Your task to perform on an android device: turn off picture-in-picture Image 0: 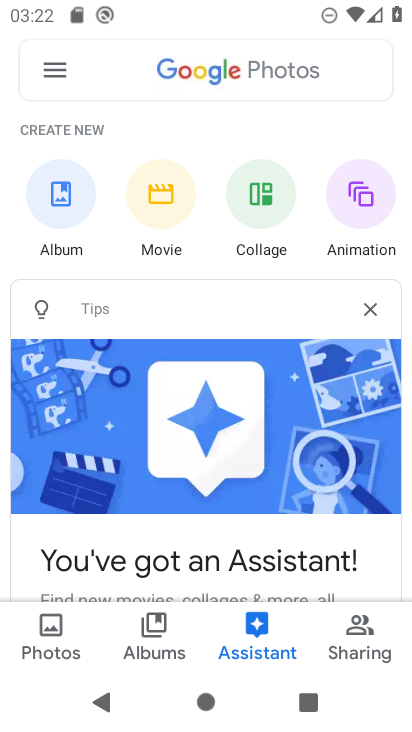
Step 0: press home button
Your task to perform on an android device: turn off picture-in-picture Image 1: 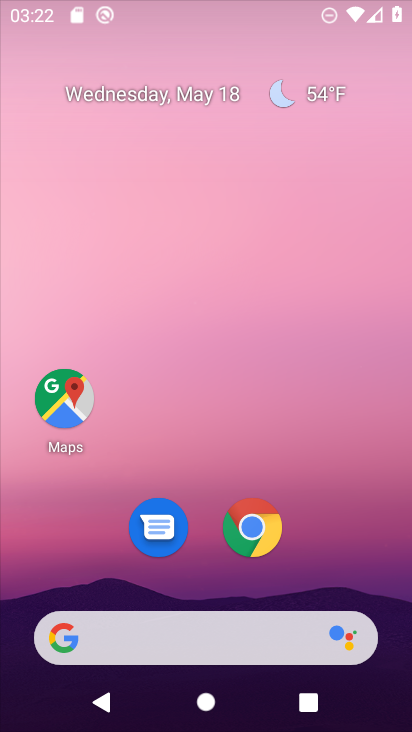
Step 1: drag from (242, 587) to (191, 2)
Your task to perform on an android device: turn off picture-in-picture Image 2: 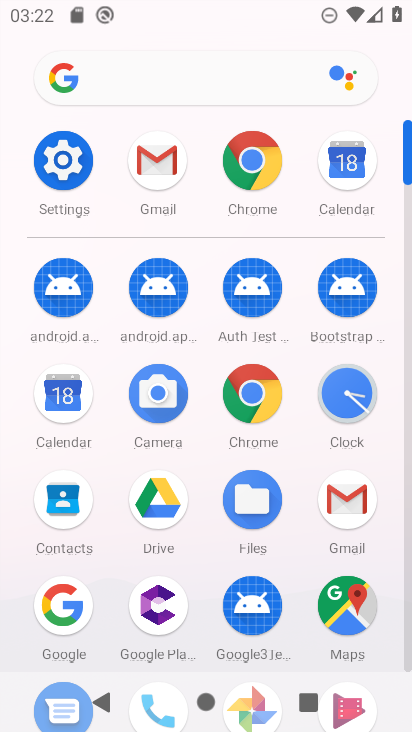
Step 2: click (66, 163)
Your task to perform on an android device: turn off picture-in-picture Image 3: 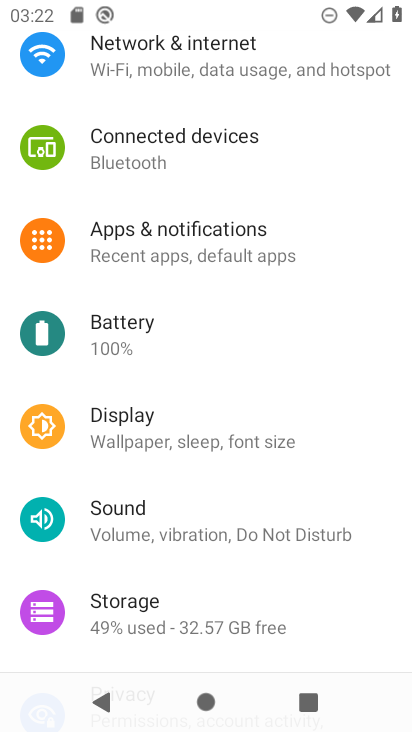
Step 3: drag from (207, 556) to (190, 453)
Your task to perform on an android device: turn off picture-in-picture Image 4: 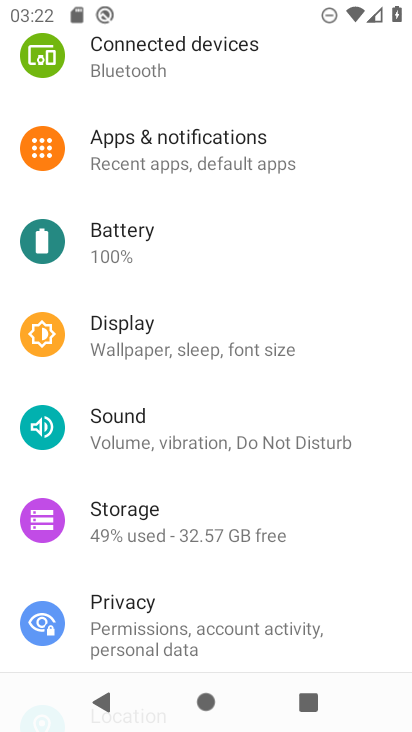
Step 4: click (153, 349)
Your task to perform on an android device: turn off picture-in-picture Image 5: 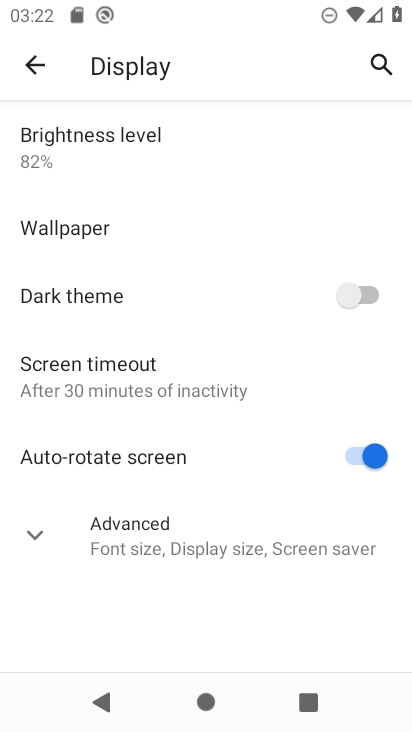
Step 5: click (38, 81)
Your task to perform on an android device: turn off picture-in-picture Image 6: 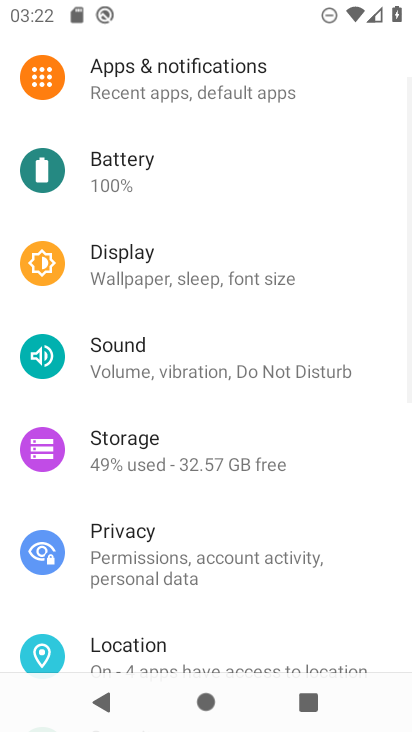
Step 6: drag from (170, 201) to (199, 468)
Your task to perform on an android device: turn off picture-in-picture Image 7: 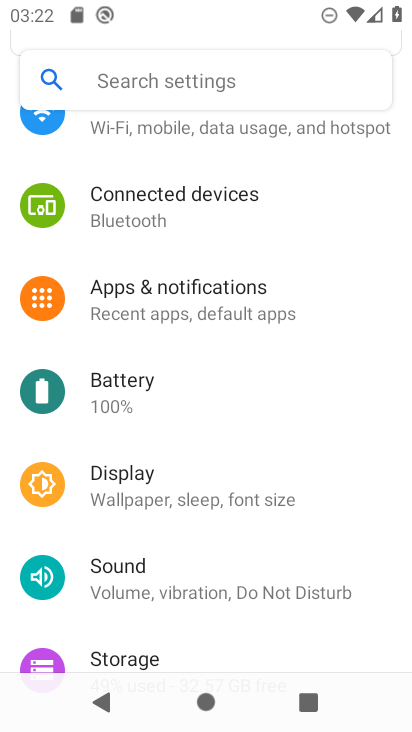
Step 7: click (164, 281)
Your task to perform on an android device: turn off picture-in-picture Image 8: 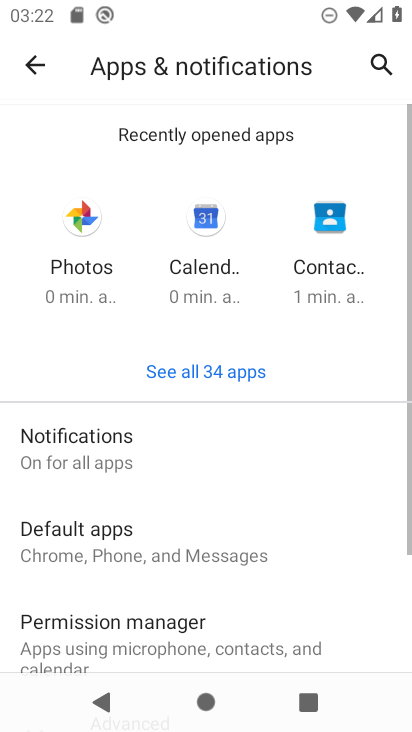
Step 8: drag from (264, 551) to (230, 278)
Your task to perform on an android device: turn off picture-in-picture Image 9: 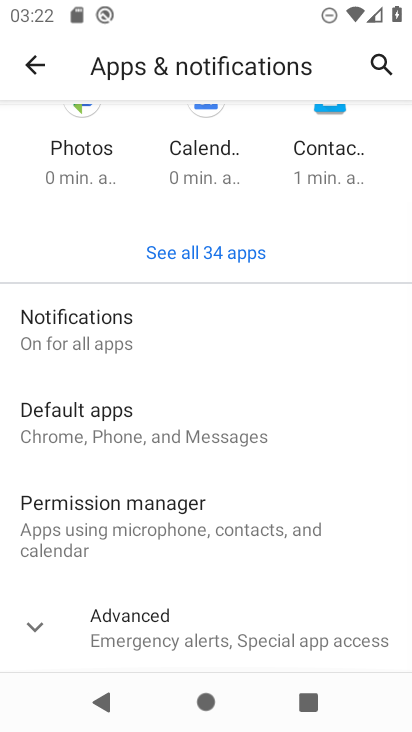
Step 9: click (158, 325)
Your task to perform on an android device: turn off picture-in-picture Image 10: 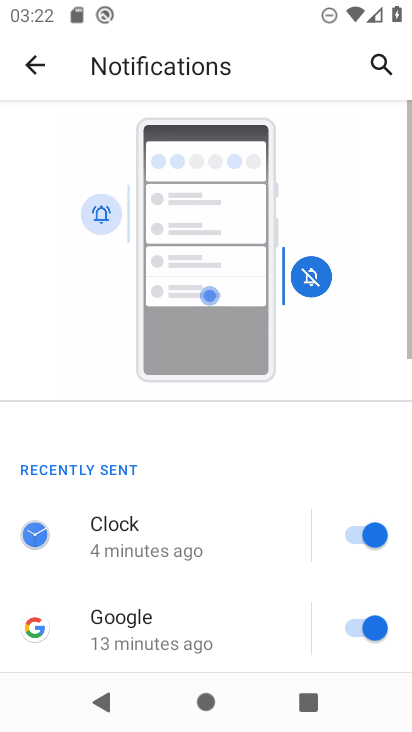
Step 10: click (27, 68)
Your task to perform on an android device: turn off picture-in-picture Image 11: 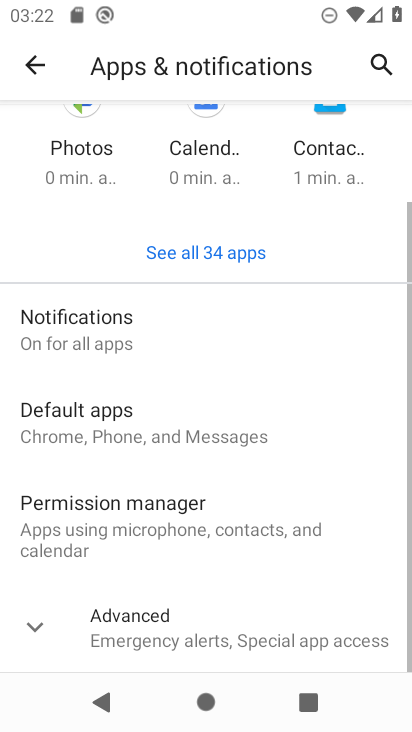
Step 11: click (163, 639)
Your task to perform on an android device: turn off picture-in-picture Image 12: 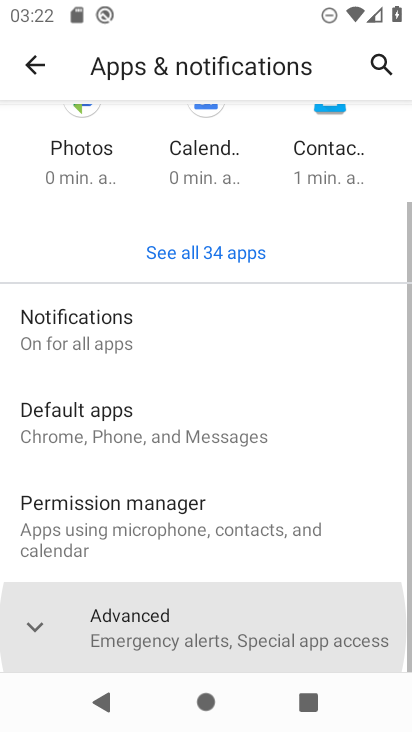
Step 12: drag from (163, 635) to (121, 161)
Your task to perform on an android device: turn off picture-in-picture Image 13: 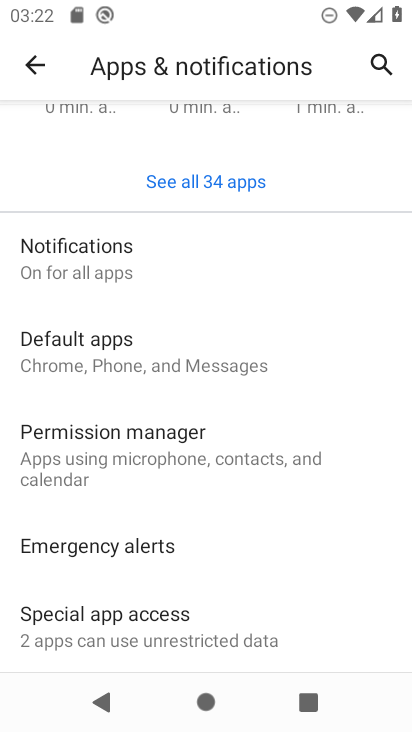
Step 13: click (140, 622)
Your task to perform on an android device: turn off picture-in-picture Image 14: 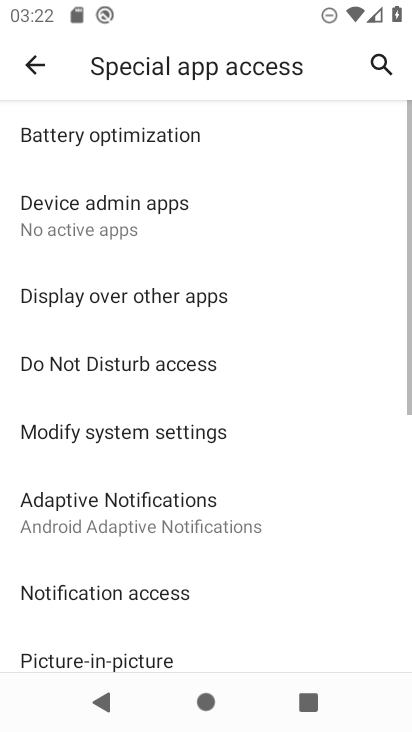
Step 14: drag from (177, 571) to (136, 236)
Your task to perform on an android device: turn off picture-in-picture Image 15: 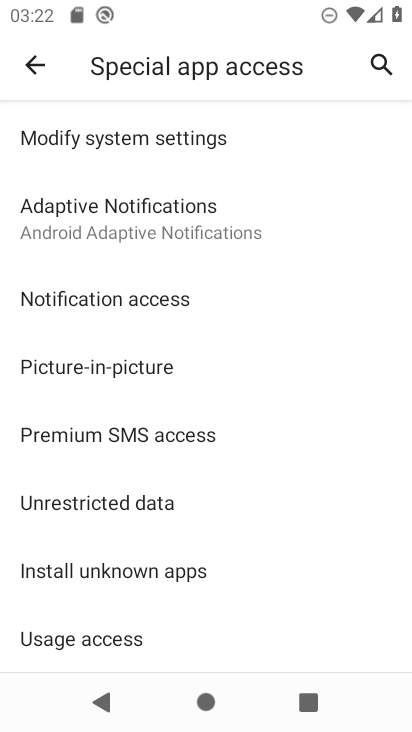
Step 15: click (133, 371)
Your task to perform on an android device: turn off picture-in-picture Image 16: 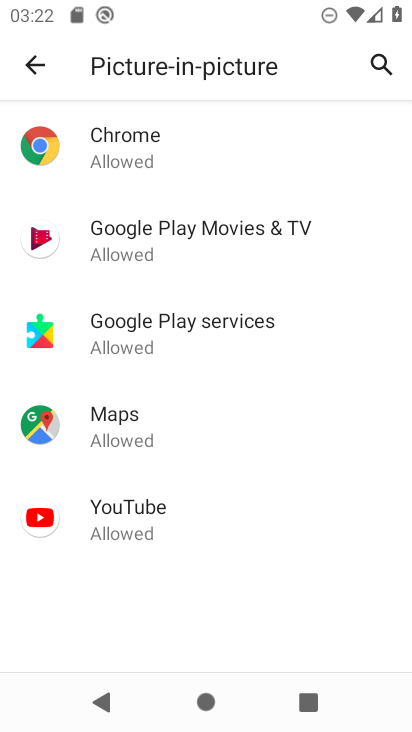
Step 16: task complete